Your task to perform on an android device: manage bookmarks in the chrome app Image 0: 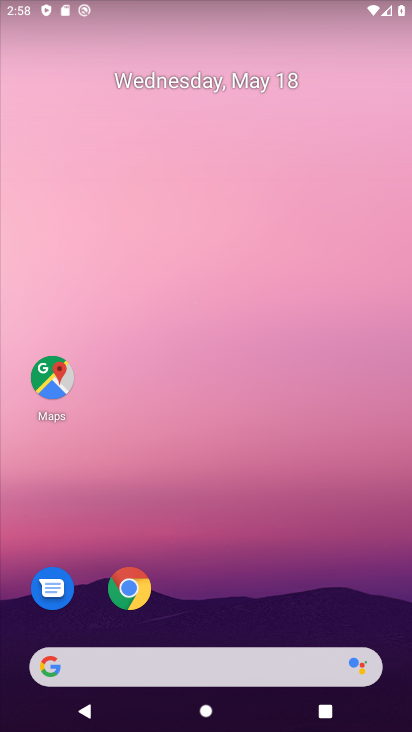
Step 0: press home button
Your task to perform on an android device: manage bookmarks in the chrome app Image 1: 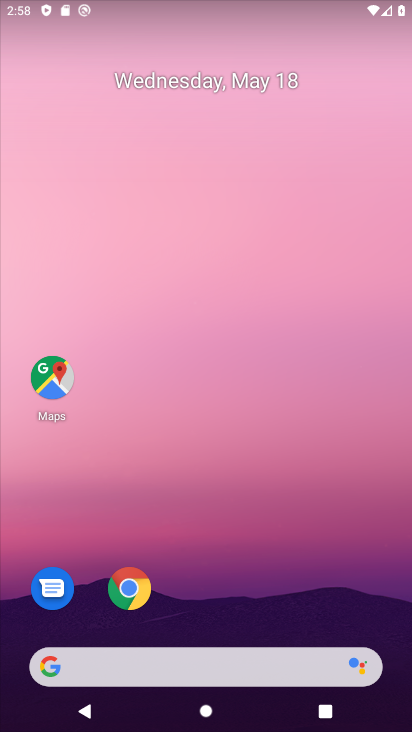
Step 1: press home button
Your task to perform on an android device: manage bookmarks in the chrome app Image 2: 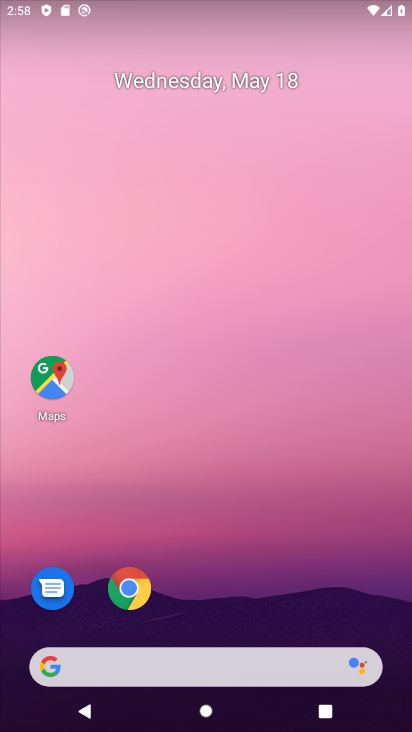
Step 2: press home button
Your task to perform on an android device: manage bookmarks in the chrome app Image 3: 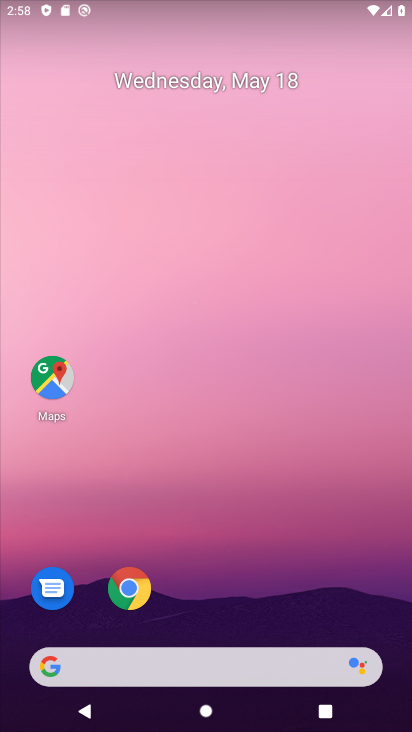
Step 3: press home button
Your task to perform on an android device: manage bookmarks in the chrome app Image 4: 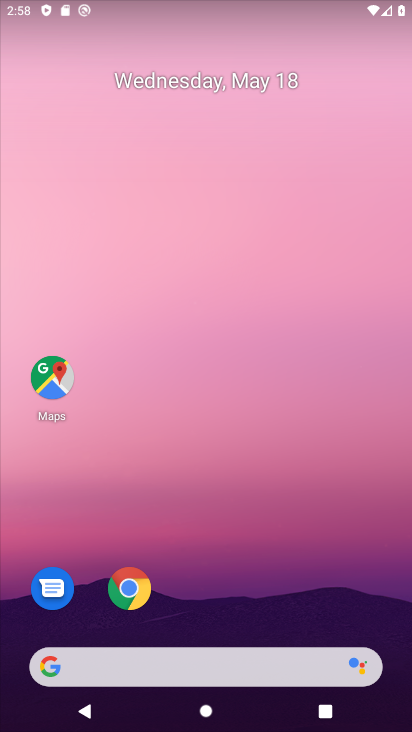
Step 4: press home button
Your task to perform on an android device: manage bookmarks in the chrome app Image 5: 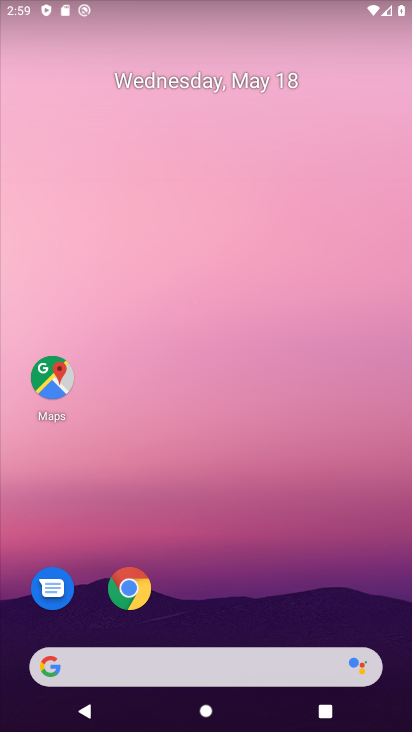
Step 5: click (131, 580)
Your task to perform on an android device: manage bookmarks in the chrome app Image 6: 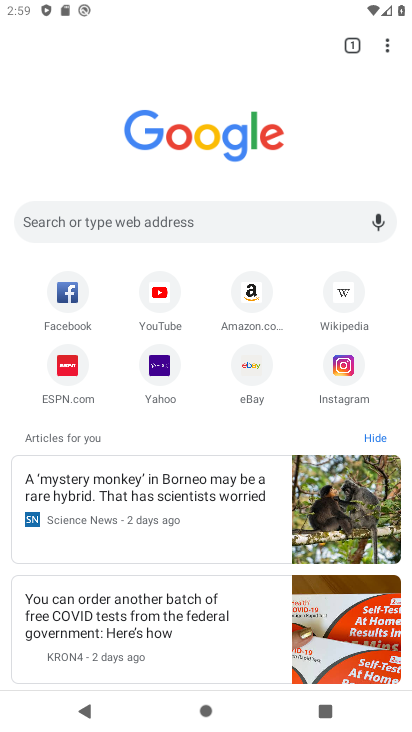
Step 6: click (380, 53)
Your task to perform on an android device: manage bookmarks in the chrome app Image 7: 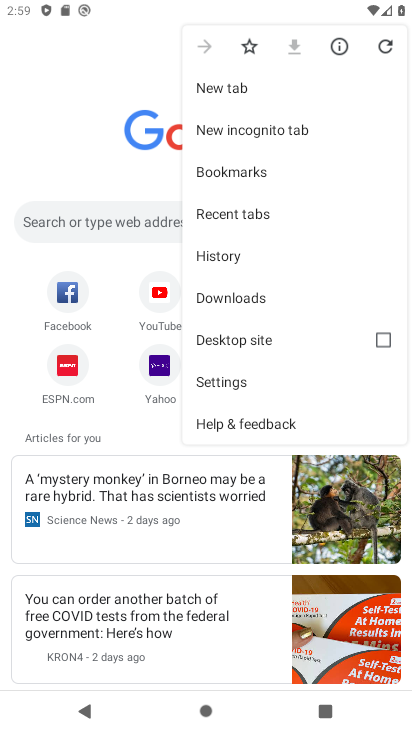
Step 7: click (222, 169)
Your task to perform on an android device: manage bookmarks in the chrome app Image 8: 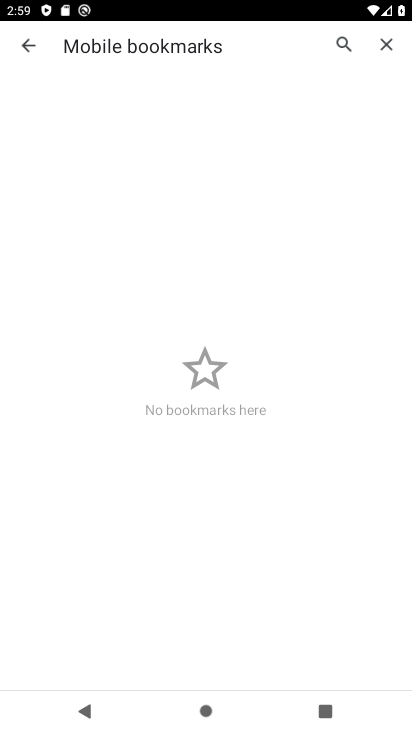
Step 8: task complete